Your task to perform on an android device: choose inbox layout in the gmail app Image 0: 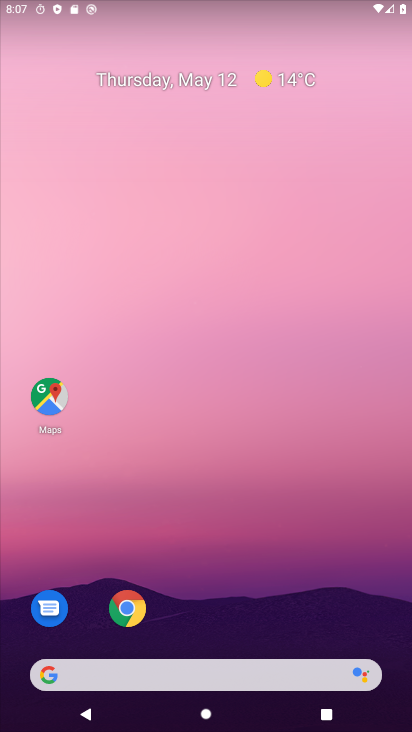
Step 0: drag from (249, 619) to (263, 153)
Your task to perform on an android device: choose inbox layout in the gmail app Image 1: 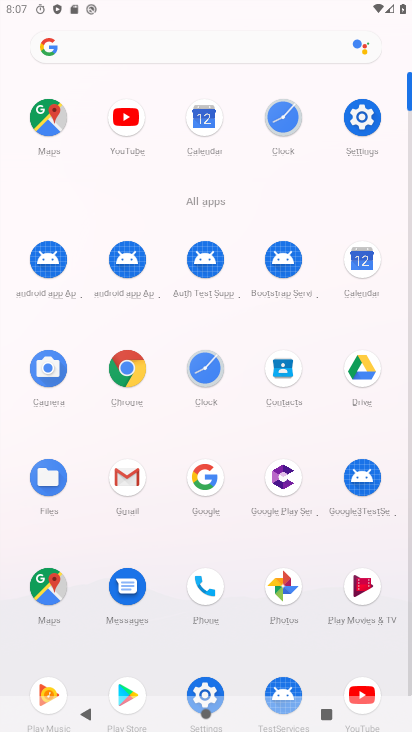
Step 1: click (132, 466)
Your task to perform on an android device: choose inbox layout in the gmail app Image 2: 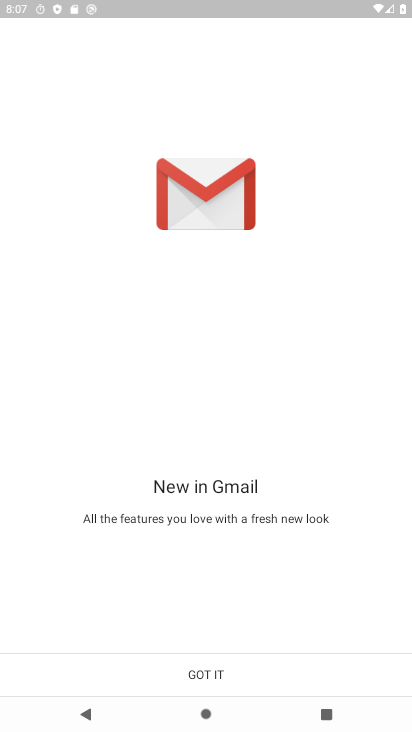
Step 2: click (190, 681)
Your task to perform on an android device: choose inbox layout in the gmail app Image 3: 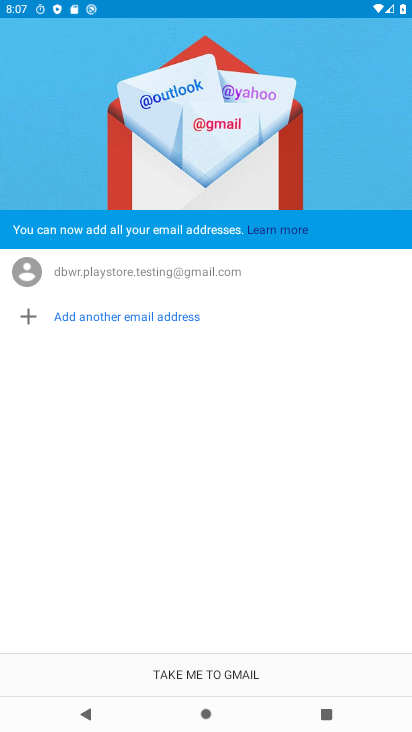
Step 3: click (228, 674)
Your task to perform on an android device: choose inbox layout in the gmail app Image 4: 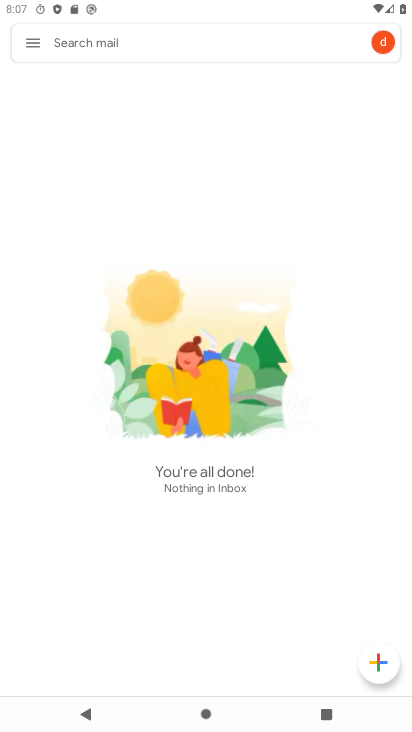
Step 4: click (28, 43)
Your task to perform on an android device: choose inbox layout in the gmail app Image 5: 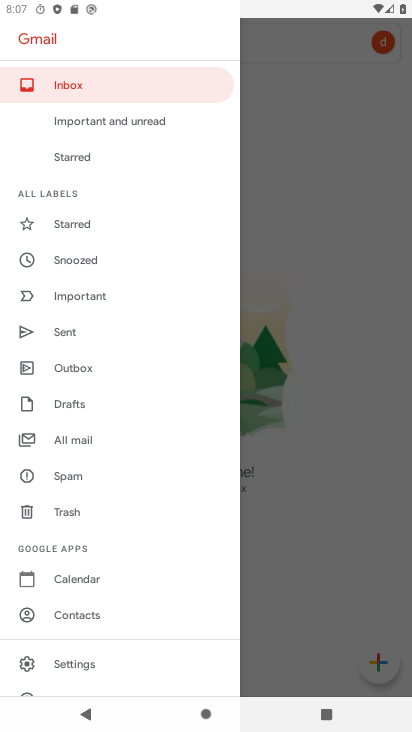
Step 5: click (99, 657)
Your task to perform on an android device: choose inbox layout in the gmail app Image 6: 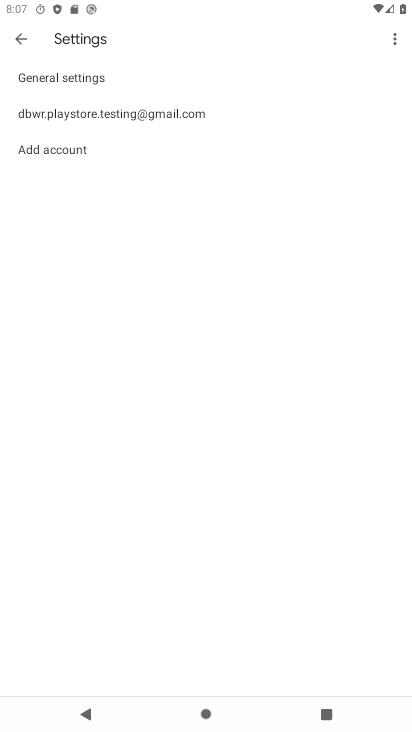
Step 6: click (99, 102)
Your task to perform on an android device: choose inbox layout in the gmail app Image 7: 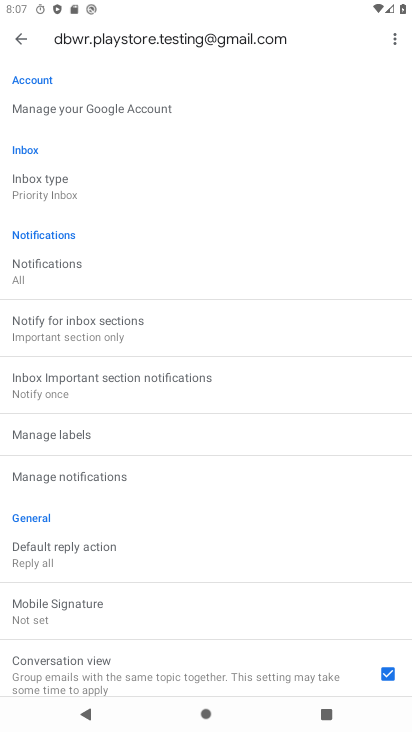
Step 7: click (42, 175)
Your task to perform on an android device: choose inbox layout in the gmail app Image 8: 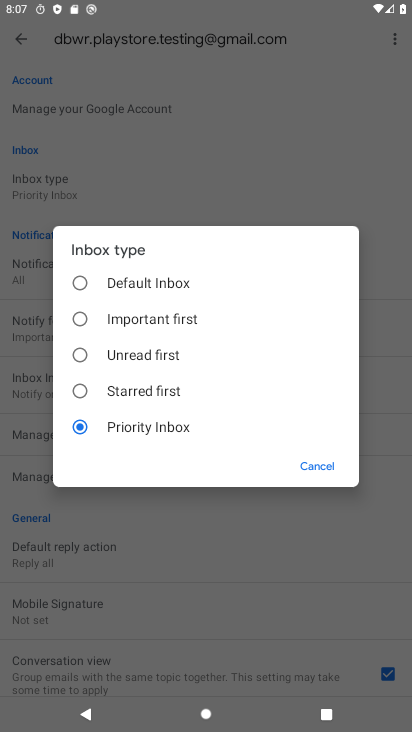
Step 8: click (83, 285)
Your task to perform on an android device: choose inbox layout in the gmail app Image 9: 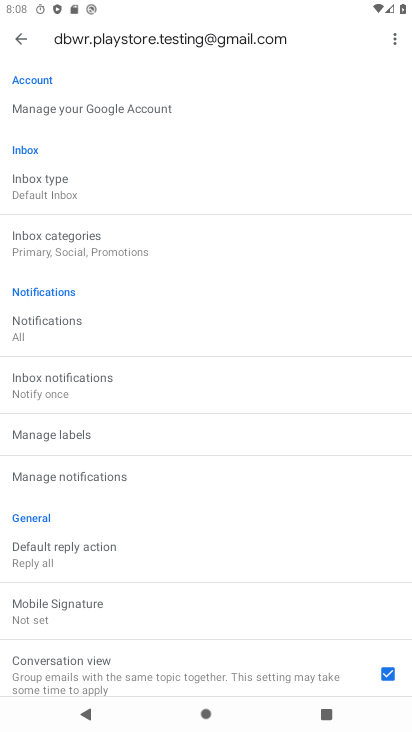
Step 9: task complete